Your task to perform on an android device: turn notification dots on Image 0: 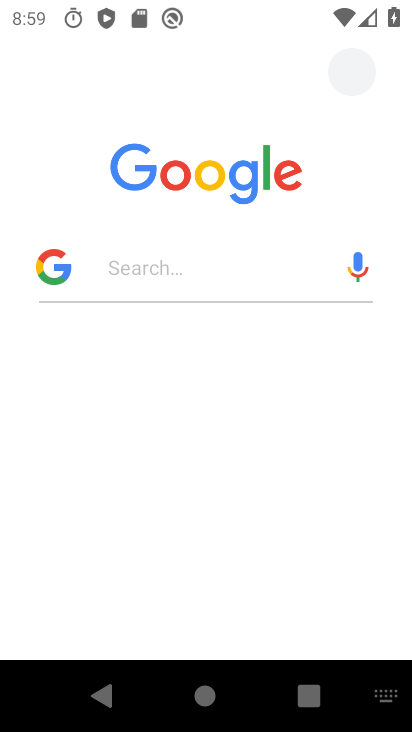
Step 0: press home button
Your task to perform on an android device: turn notification dots on Image 1: 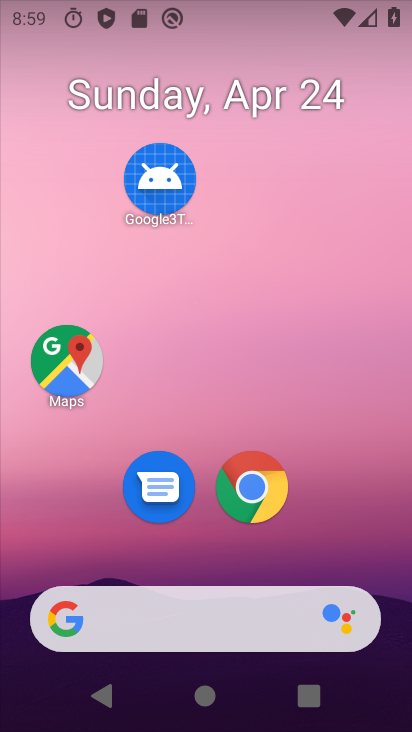
Step 1: drag from (345, 507) to (264, 104)
Your task to perform on an android device: turn notification dots on Image 2: 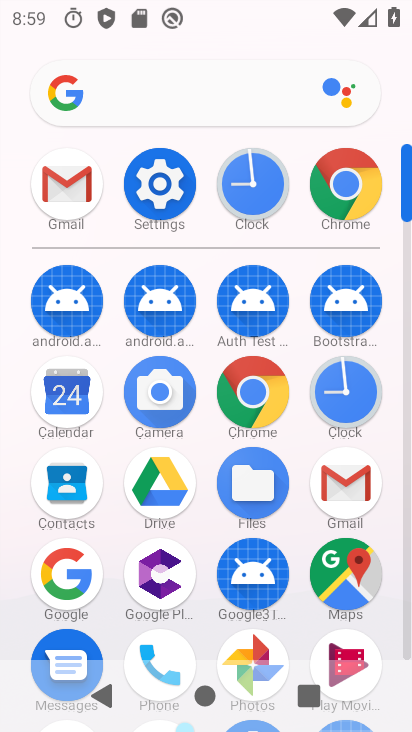
Step 2: click (155, 169)
Your task to perform on an android device: turn notification dots on Image 3: 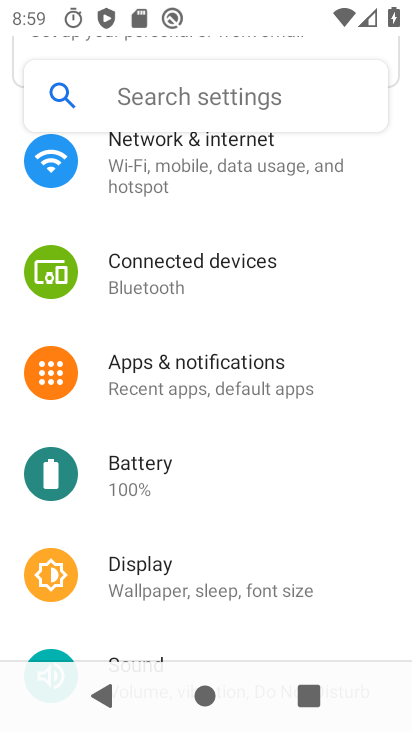
Step 3: click (199, 376)
Your task to perform on an android device: turn notification dots on Image 4: 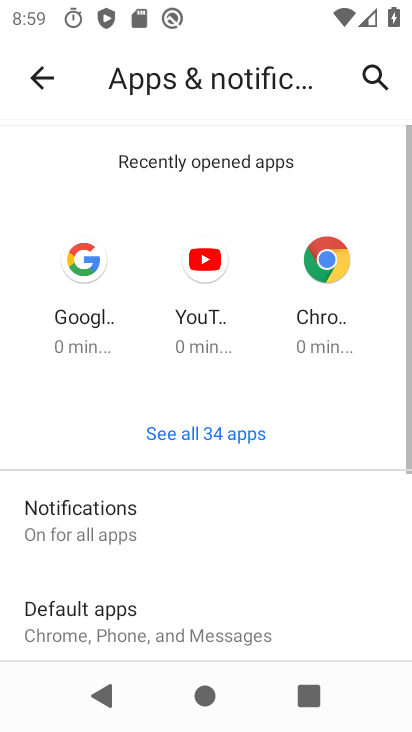
Step 4: click (93, 526)
Your task to perform on an android device: turn notification dots on Image 5: 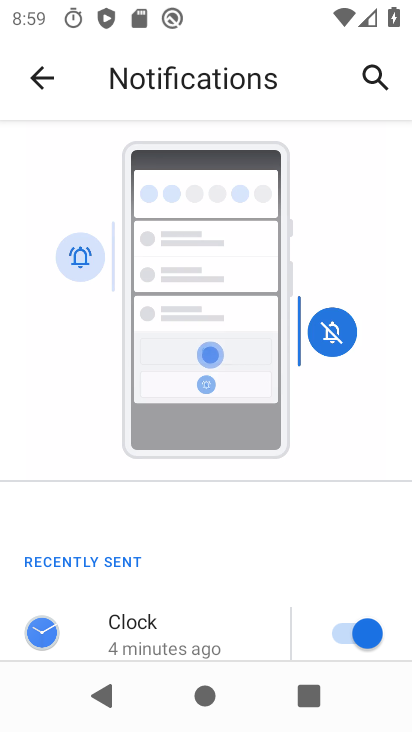
Step 5: drag from (194, 514) to (214, 120)
Your task to perform on an android device: turn notification dots on Image 6: 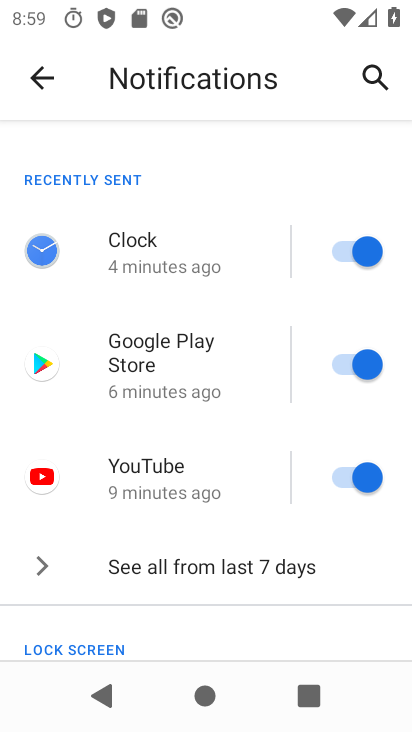
Step 6: drag from (195, 611) to (225, 199)
Your task to perform on an android device: turn notification dots on Image 7: 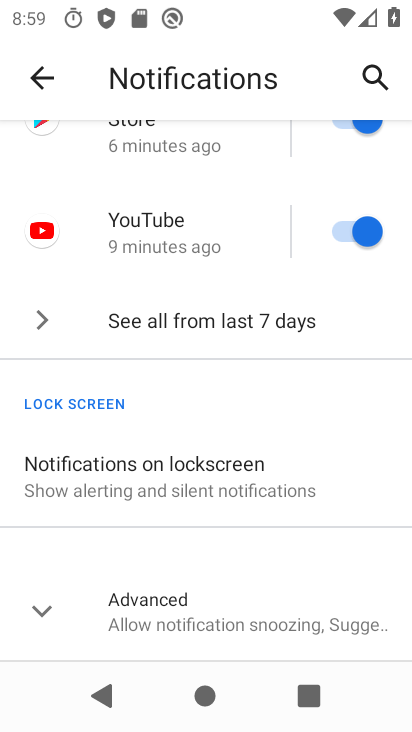
Step 7: click (222, 628)
Your task to perform on an android device: turn notification dots on Image 8: 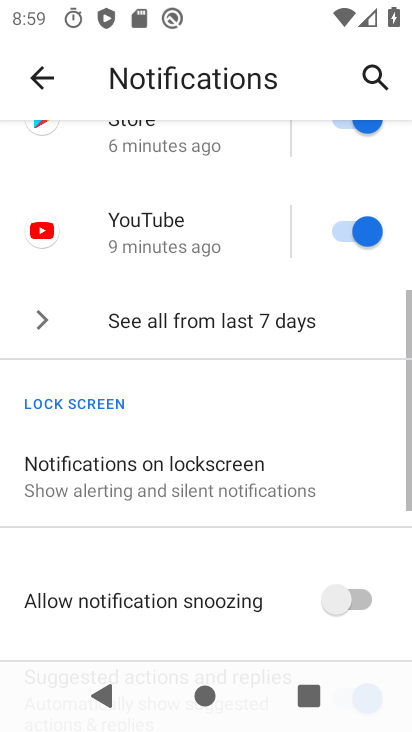
Step 8: task complete